Your task to perform on an android device: Check the news Image 0: 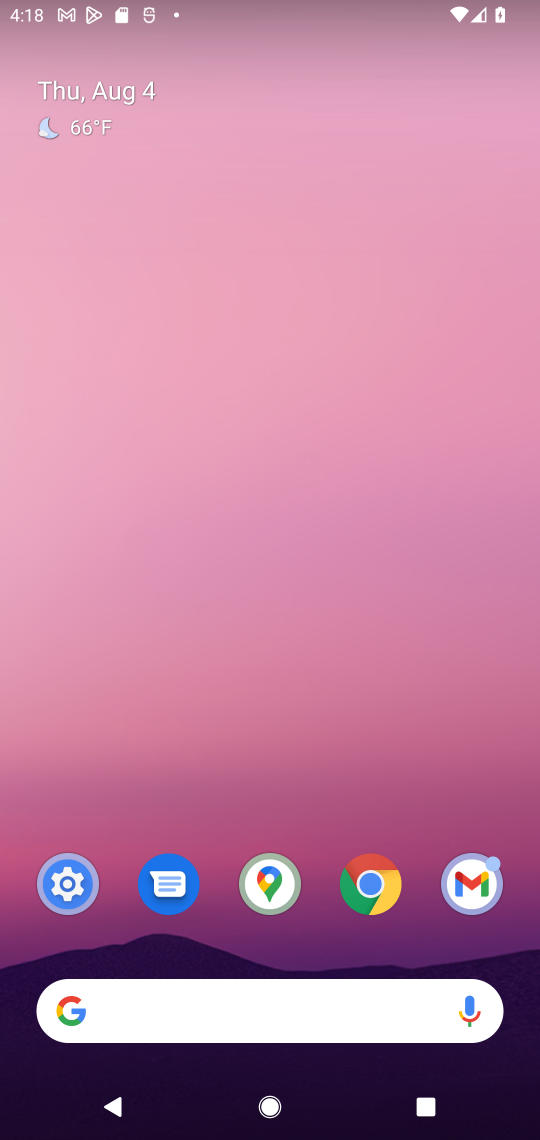
Step 0: drag from (315, 747) to (332, 359)
Your task to perform on an android device: Check the news Image 1: 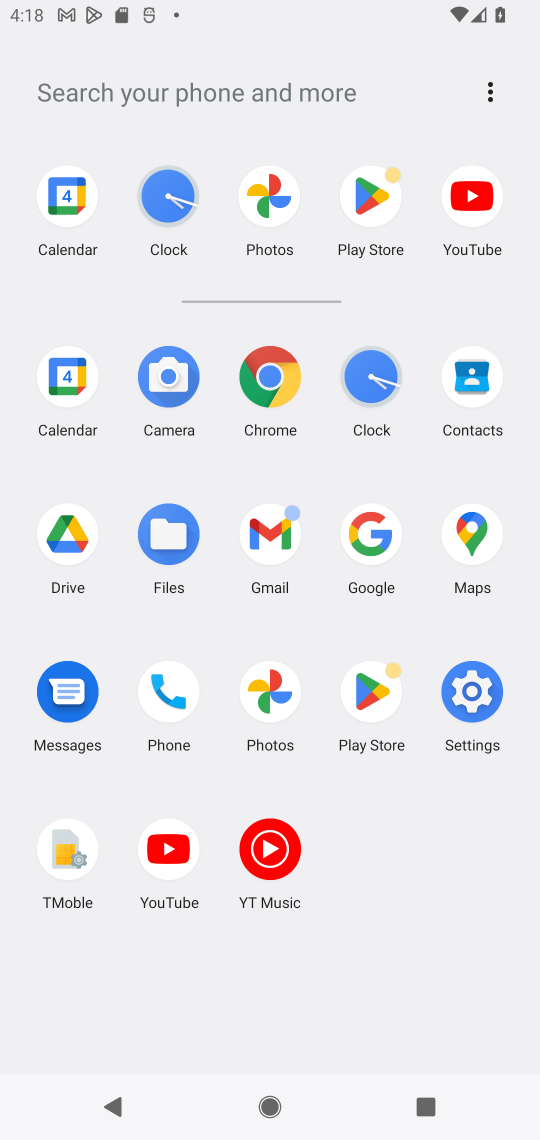
Step 1: click (216, 84)
Your task to perform on an android device: Check the news Image 2: 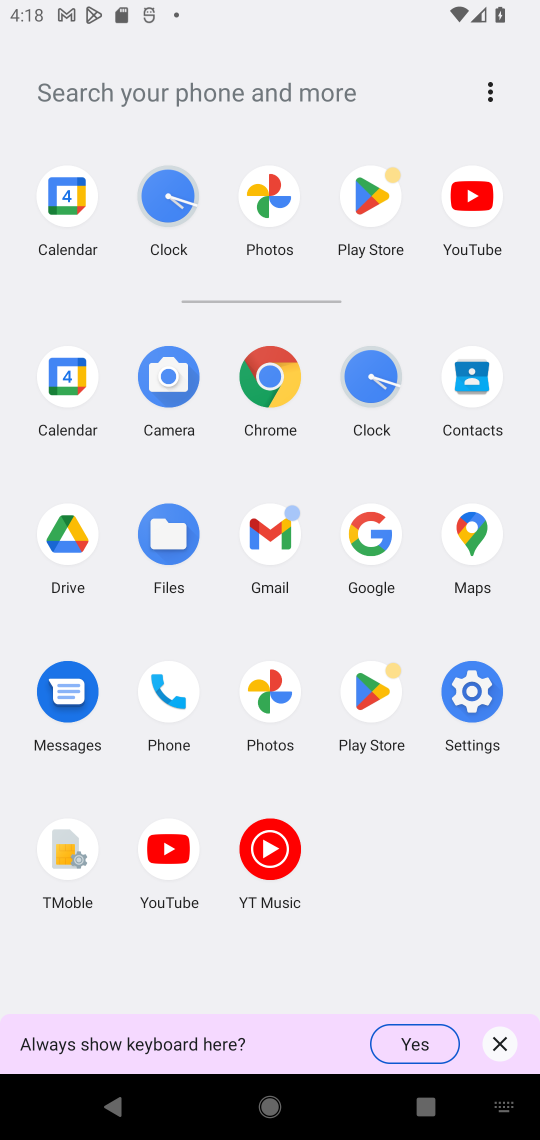
Step 2: type "news"
Your task to perform on an android device: Check the news Image 3: 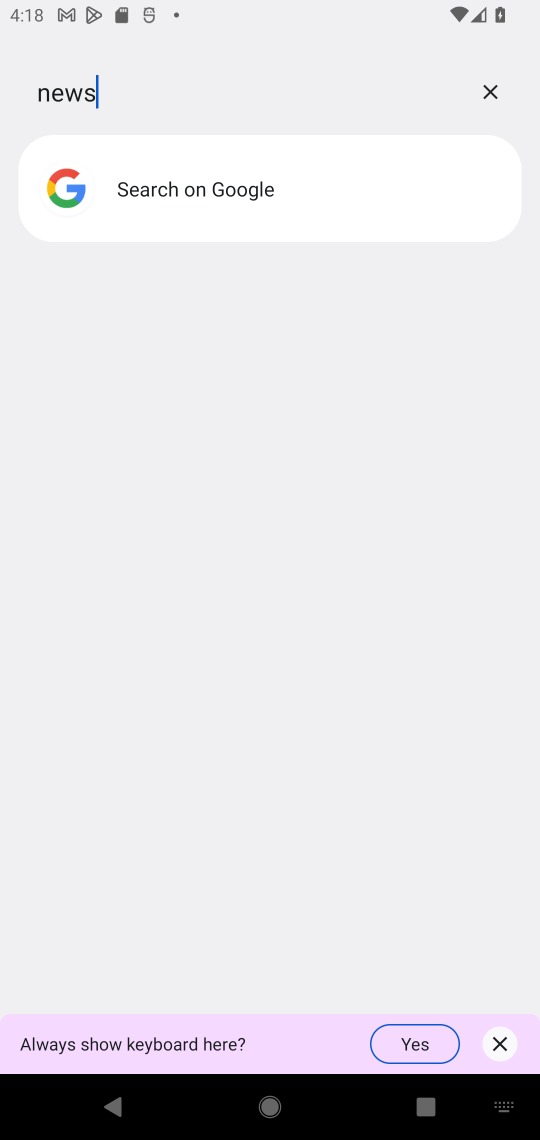
Step 3: click (140, 189)
Your task to perform on an android device: Check the news Image 4: 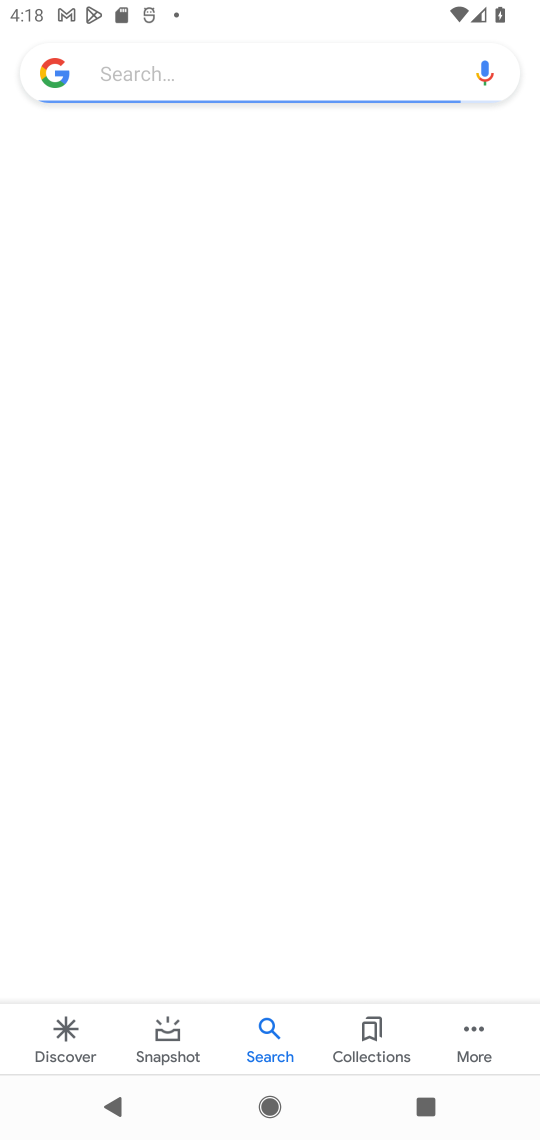
Step 4: task complete